Your task to perform on an android device: What's the weather going to be this weekend? Image 0: 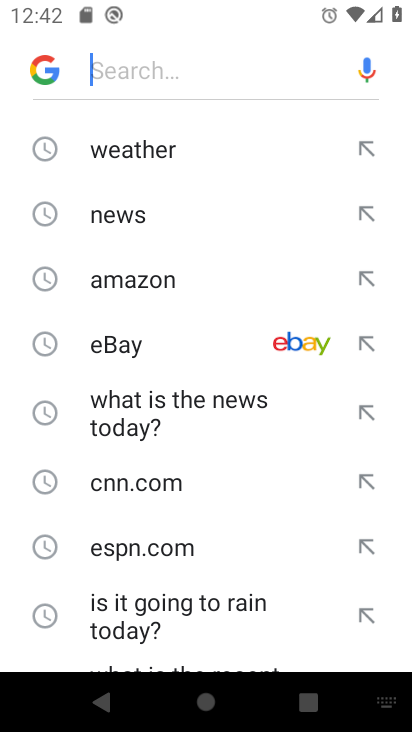
Step 0: press home button
Your task to perform on an android device: What's the weather going to be this weekend? Image 1: 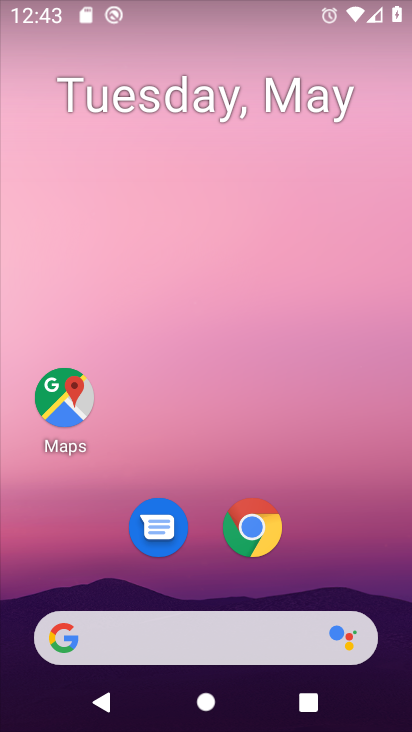
Step 1: click (197, 627)
Your task to perform on an android device: What's the weather going to be this weekend? Image 2: 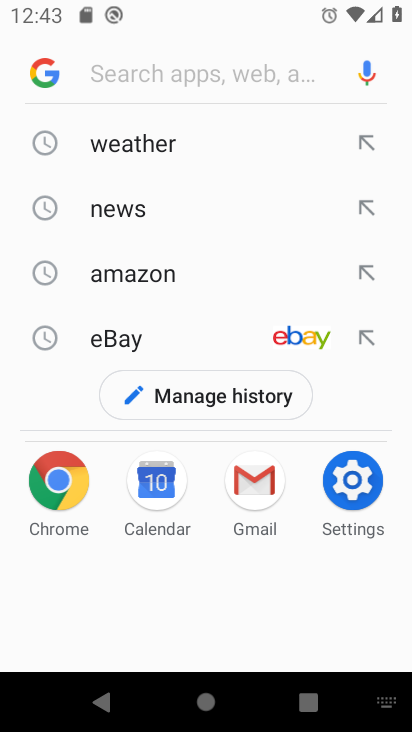
Step 2: type "What's the weather going to be this weekend?"
Your task to perform on an android device: What's the weather going to be this weekend? Image 3: 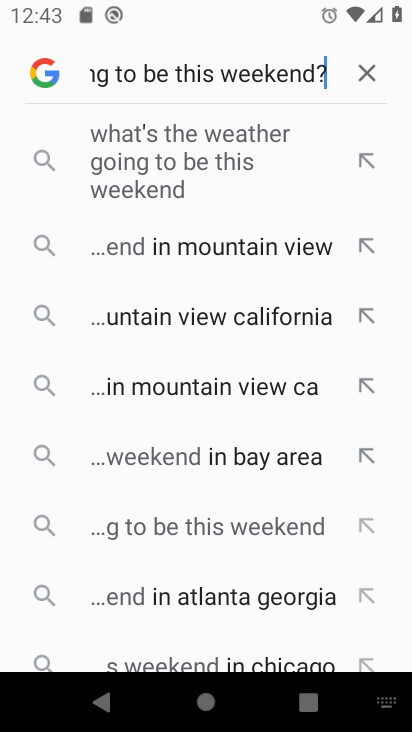
Step 3: click (246, 161)
Your task to perform on an android device: What's the weather going to be this weekend? Image 4: 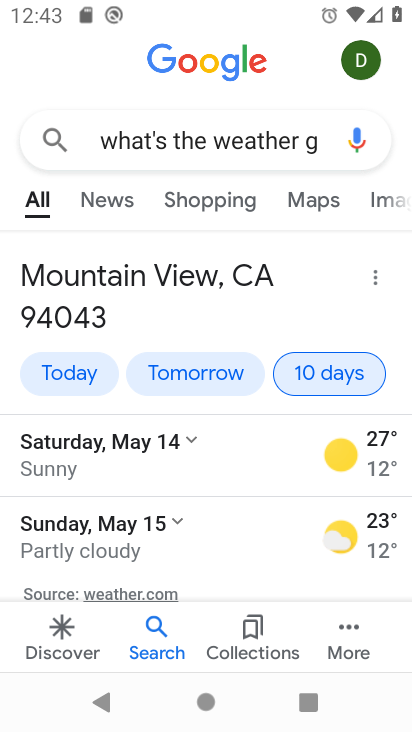
Step 4: task complete